Your task to perform on an android device: turn on data saver in the chrome app Image 0: 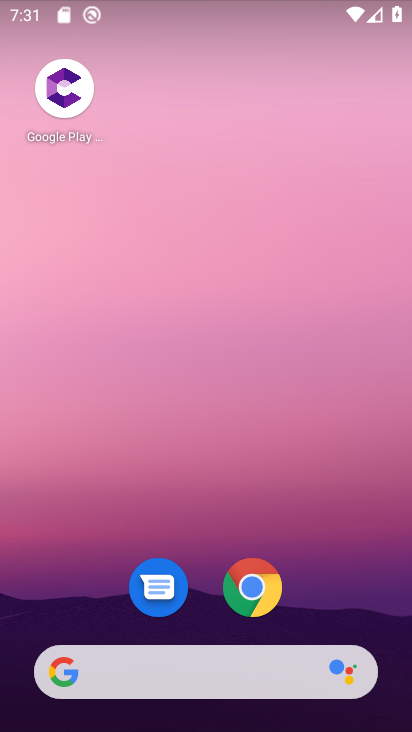
Step 0: click (256, 589)
Your task to perform on an android device: turn on data saver in the chrome app Image 1: 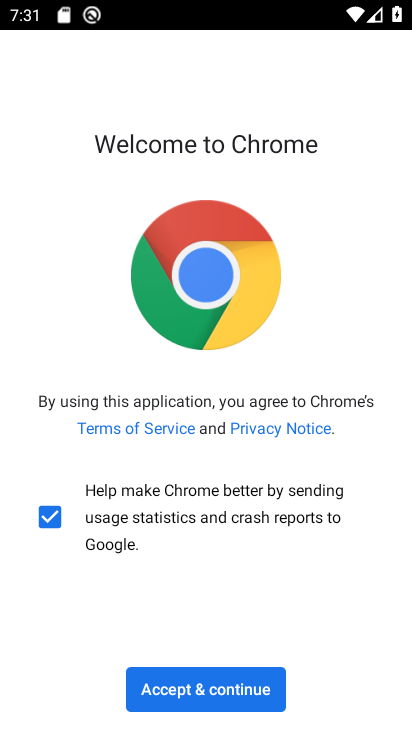
Step 1: click (265, 677)
Your task to perform on an android device: turn on data saver in the chrome app Image 2: 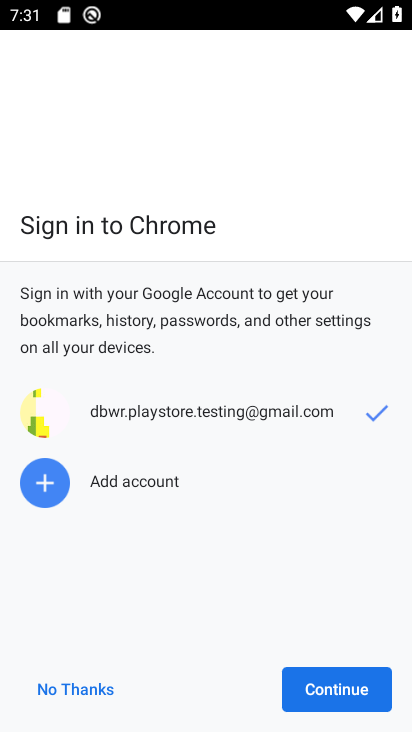
Step 2: click (338, 687)
Your task to perform on an android device: turn on data saver in the chrome app Image 3: 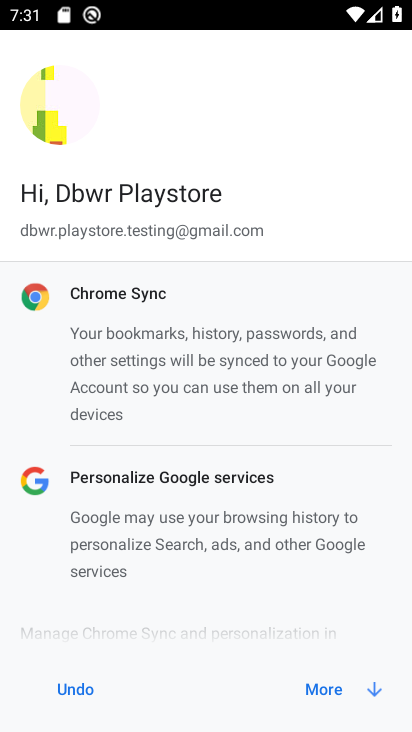
Step 3: click (351, 700)
Your task to perform on an android device: turn on data saver in the chrome app Image 4: 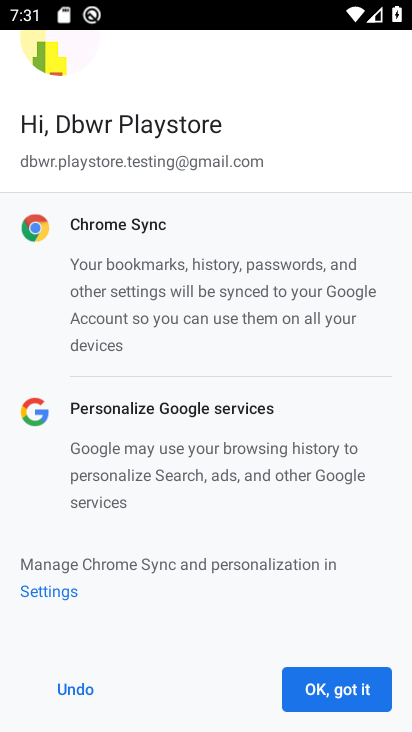
Step 4: click (351, 700)
Your task to perform on an android device: turn on data saver in the chrome app Image 5: 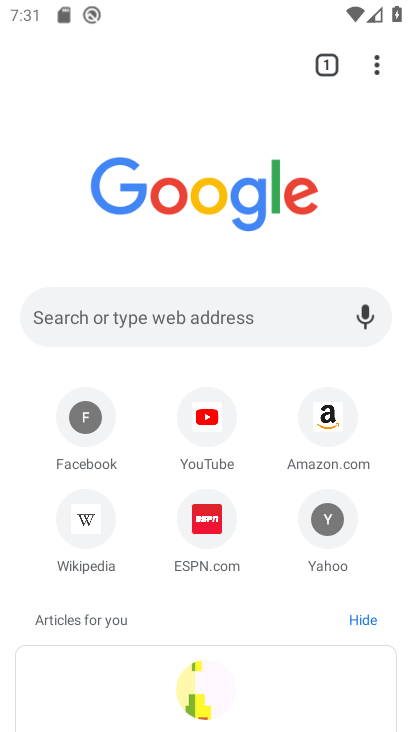
Step 5: click (373, 58)
Your task to perform on an android device: turn on data saver in the chrome app Image 6: 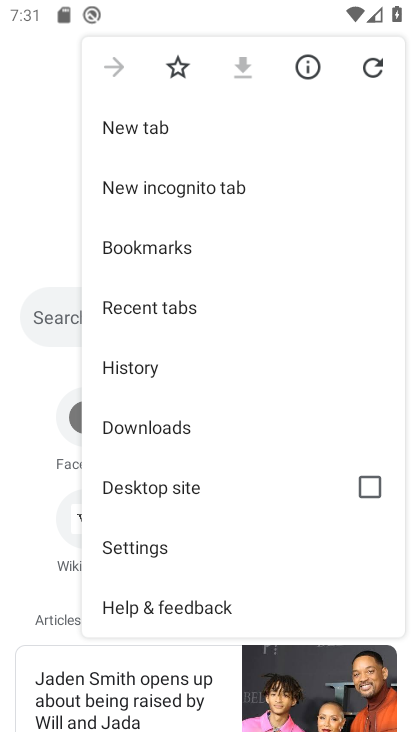
Step 6: click (201, 557)
Your task to perform on an android device: turn on data saver in the chrome app Image 7: 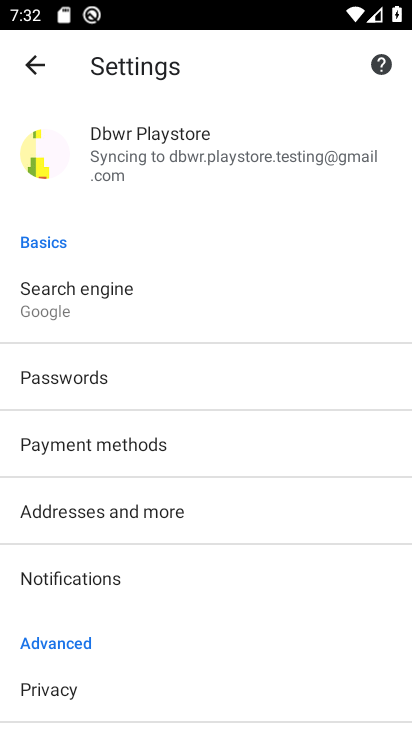
Step 7: drag from (201, 557) to (222, 95)
Your task to perform on an android device: turn on data saver in the chrome app Image 8: 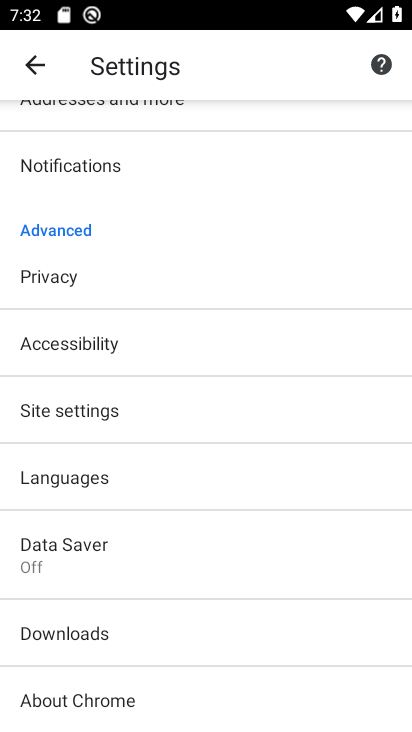
Step 8: click (99, 542)
Your task to perform on an android device: turn on data saver in the chrome app Image 9: 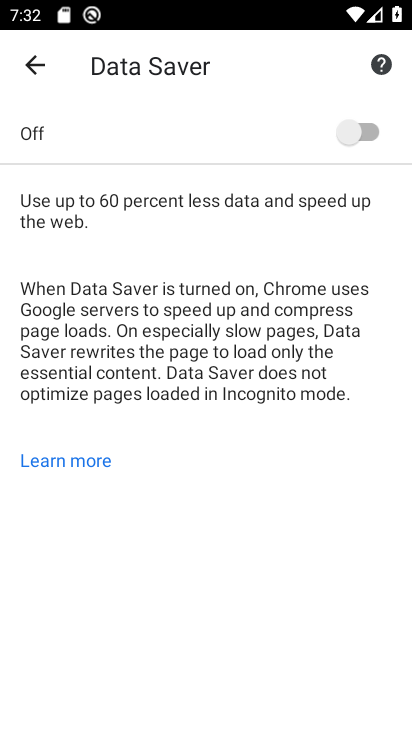
Step 9: click (369, 128)
Your task to perform on an android device: turn on data saver in the chrome app Image 10: 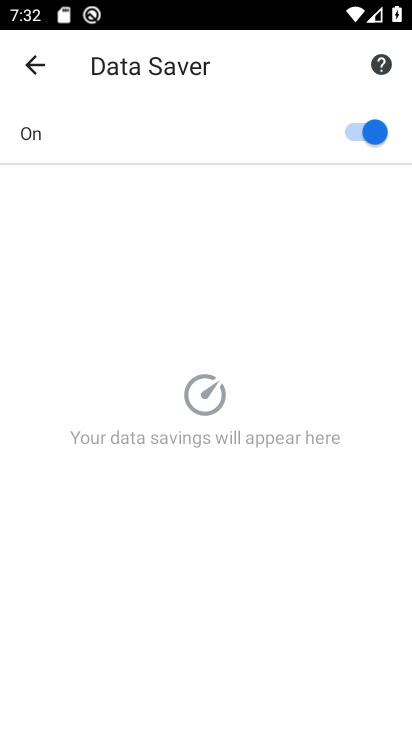
Step 10: task complete